Your task to perform on an android device: open device folders in google photos Image 0: 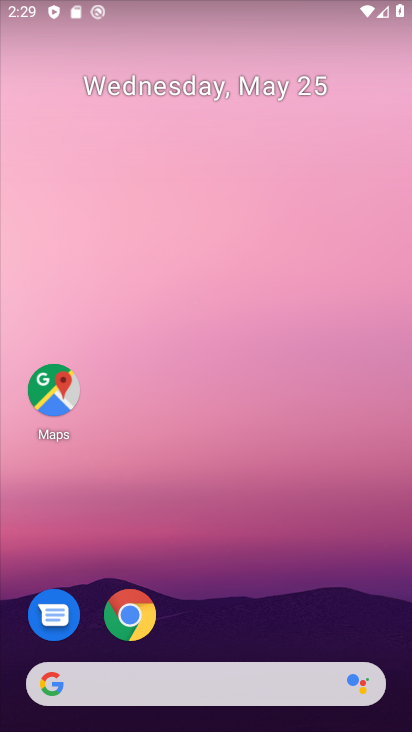
Step 0: drag from (326, 620) to (318, 3)
Your task to perform on an android device: open device folders in google photos Image 1: 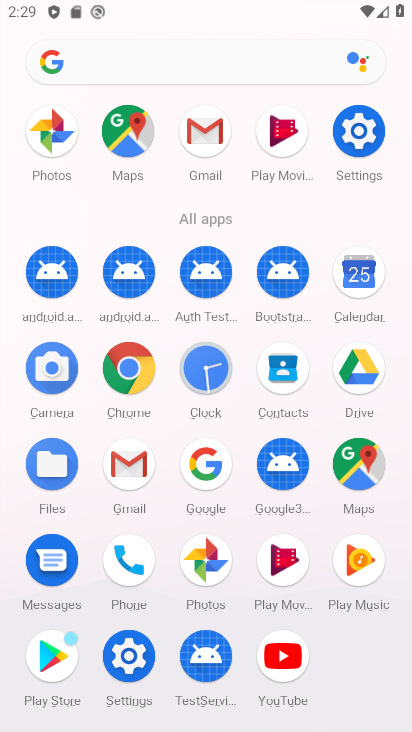
Step 1: click (212, 570)
Your task to perform on an android device: open device folders in google photos Image 2: 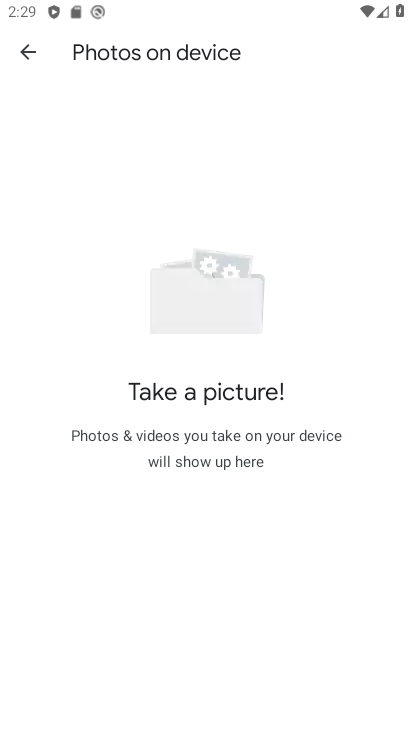
Step 2: task complete